Your task to perform on an android device: check battery use Image 0: 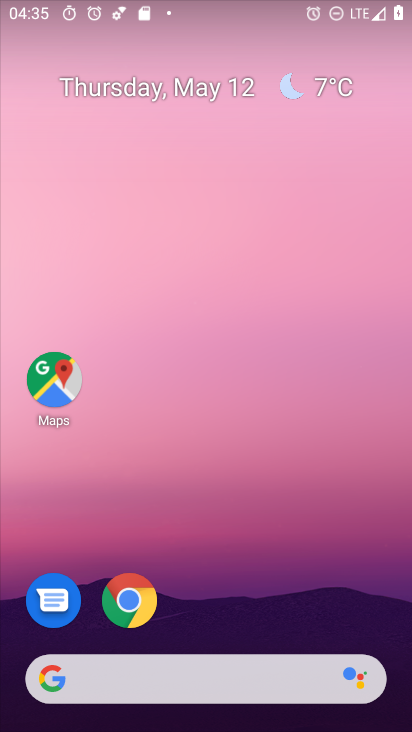
Step 0: drag from (222, 726) to (222, 44)
Your task to perform on an android device: check battery use Image 1: 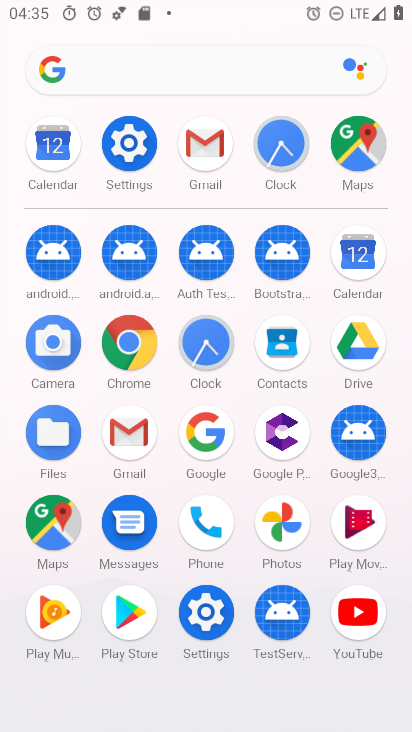
Step 1: click (126, 133)
Your task to perform on an android device: check battery use Image 2: 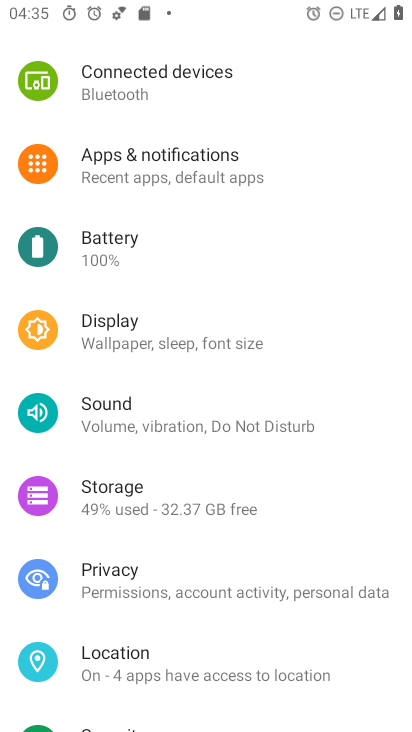
Step 2: click (100, 238)
Your task to perform on an android device: check battery use Image 3: 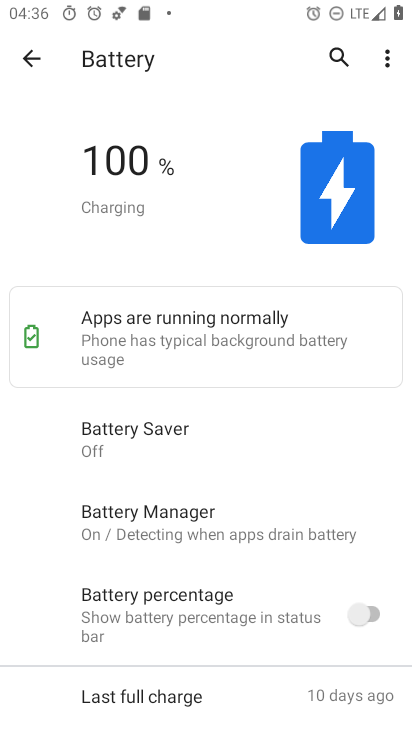
Step 3: click (382, 54)
Your task to perform on an android device: check battery use Image 4: 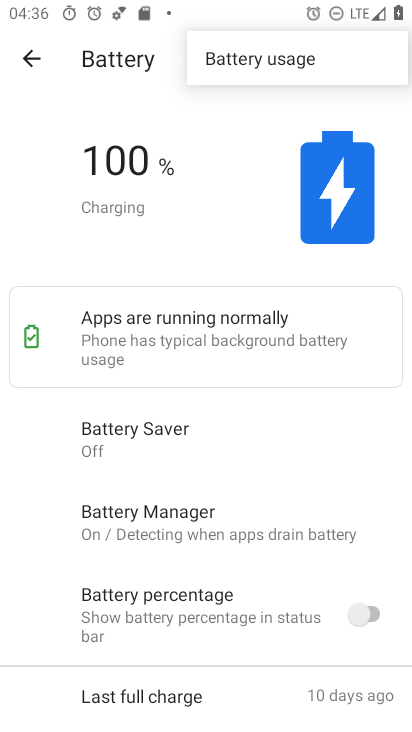
Step 4: click (289, 57)
Your task to perform on an android device: check battery use Image 5: 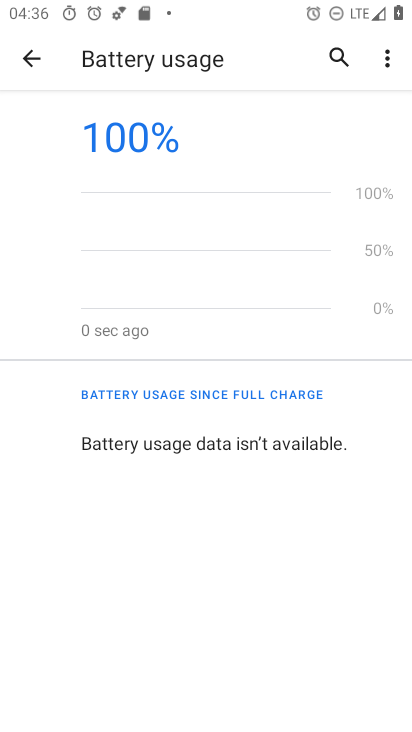
Step 5: task complete